Your task to perform on an android device: turn pop-ups on in chrome Image 0: 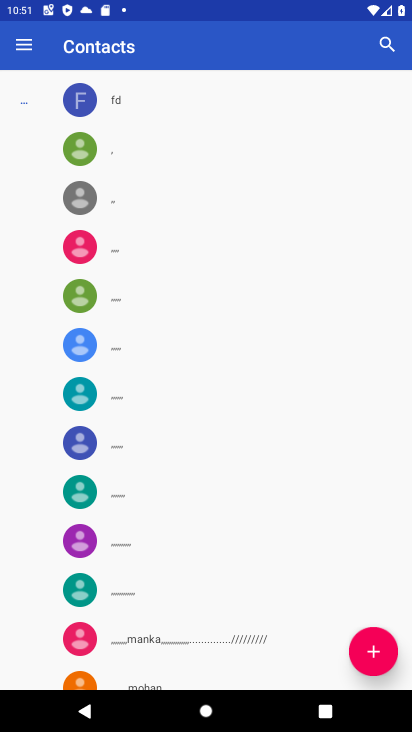
Step 0: press home button
Your task to perform on an android device: turn pop-ups on in chrome Image 1: 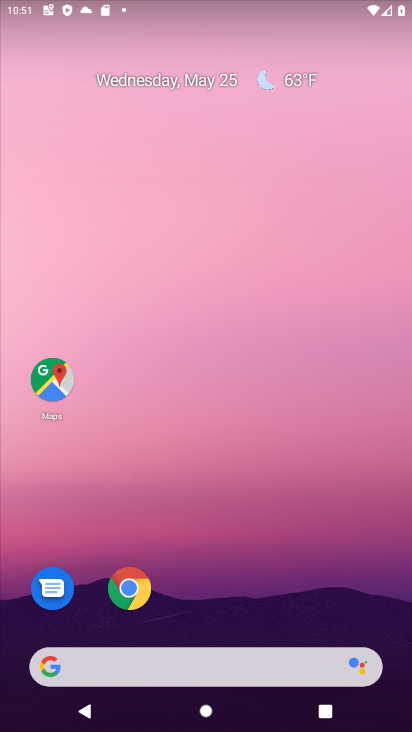
Step 1: click (140, 603)
Your task to perform on an android device: turn pop-ups on in chrome Image 2: 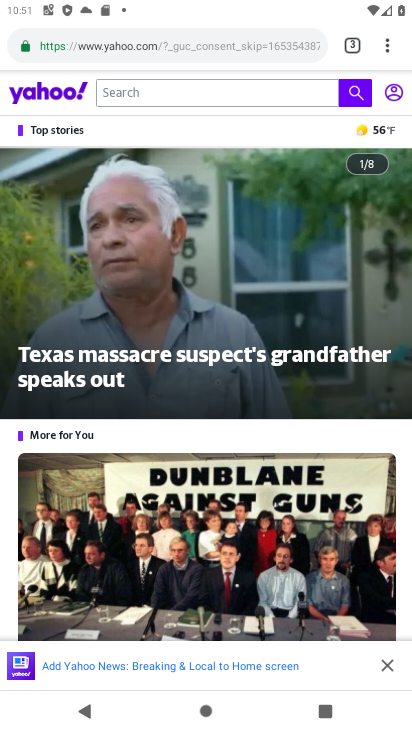
Step 2: click (388, 52)
Your task to perform on an android device: turn pop-ups on in chrome Image 3: 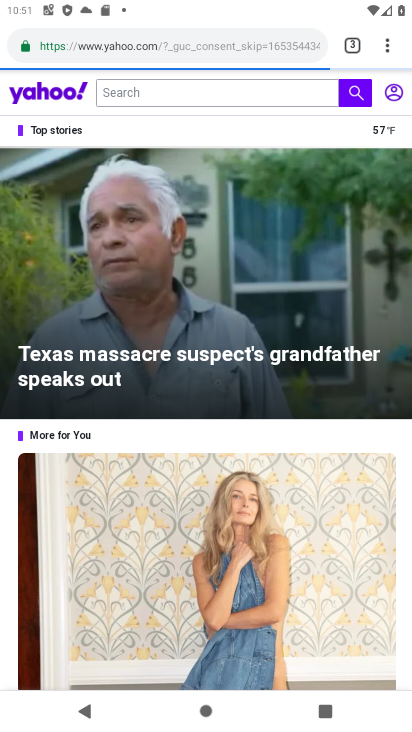
Step 3: click (388, 52)
Your task to perform on an android device: turn pop-ups on in chrome Image 4: 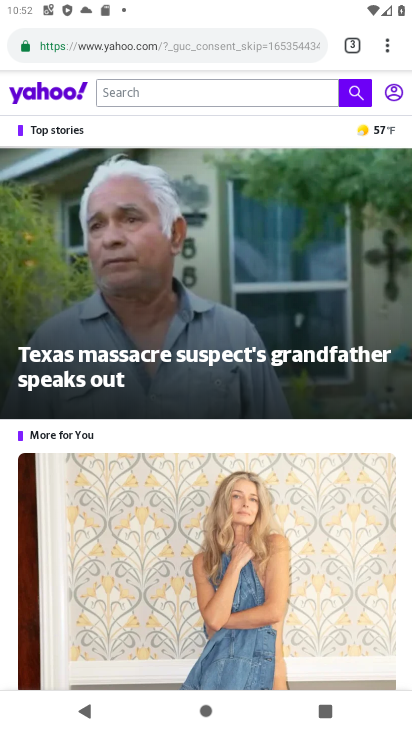
Step 4: click (387, 53)
Your task to perform on an android device: turn pop-ups on in chrome Image 5: 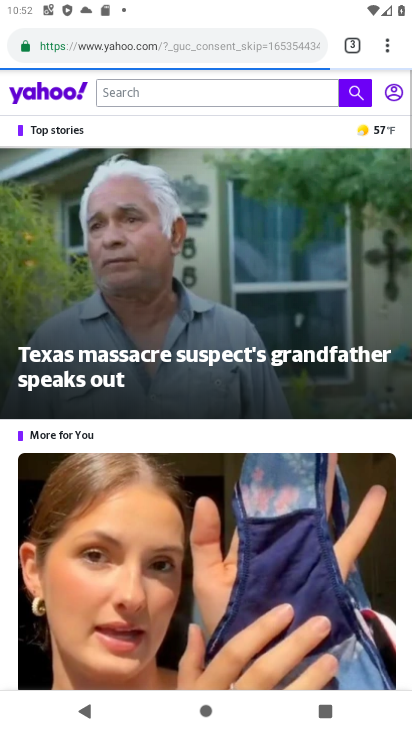
Step 5: click (387, 53)
Your task to perform on an android device: turn pop-ups on in chrome Image 6: 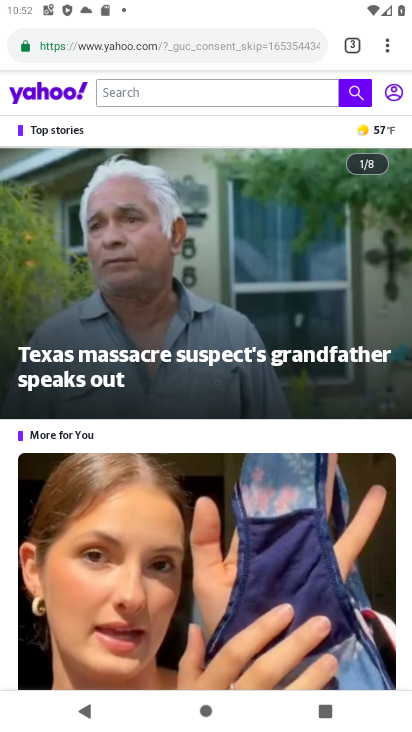
Step 6: click (390, 60)
Your task to perform on an android device: turn pop-ups on in chrome Image 7: 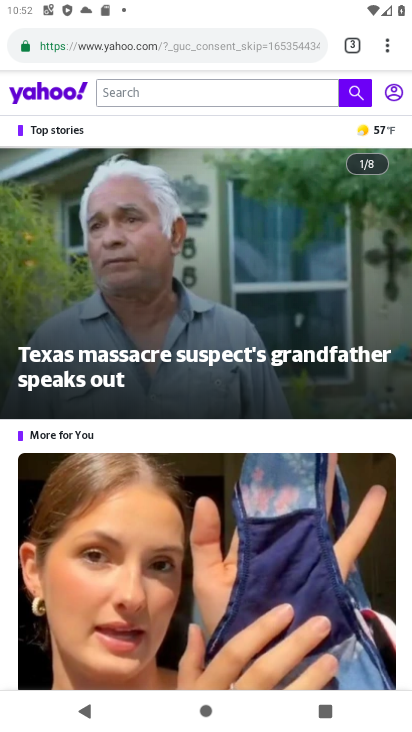
Step 7: click (381, 57)
Your task to perform on an android device: turn pop-ups on in chrome Image 8: 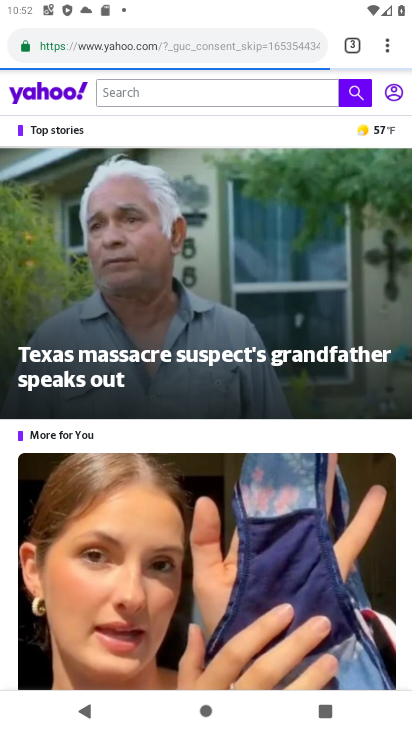
Step 8: click (381, 57)
Your task to perform on an android device: turn pop-ups on in chrome Image 9: 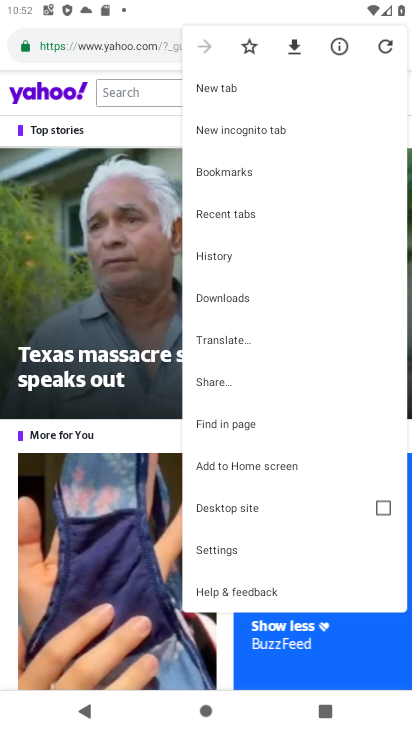
Step 9: click (217, 555)
Your task to perform on an android device: turn pop-ups on in chrome Image 10: 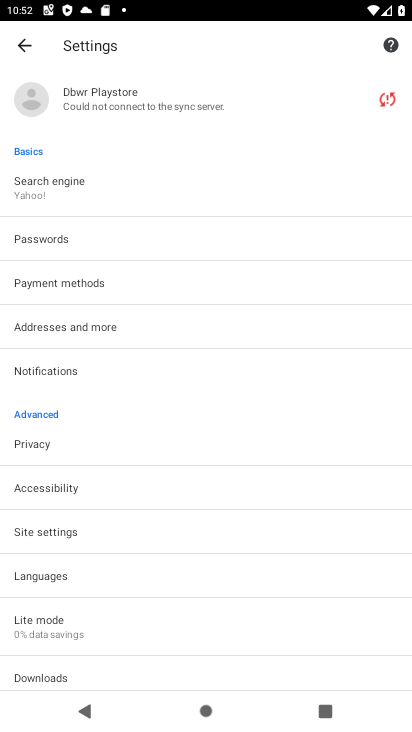
Step 10: click (129, 516)
Your task to perform on an android device: turn pop-ups on in chrome Image 11: 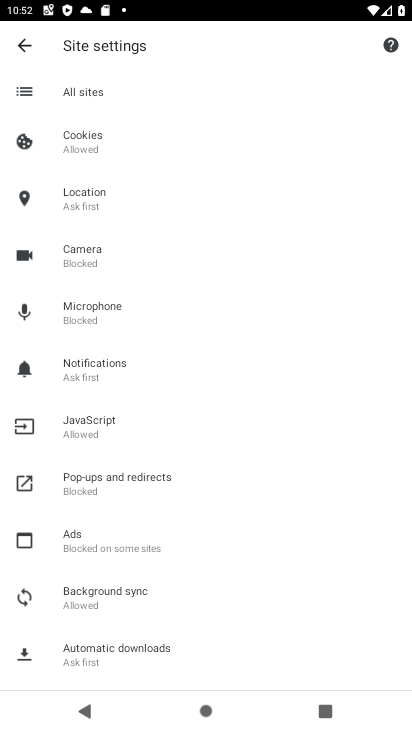
Step 11: click (135, 486)
Your task to perform on an android device: turn pop-ups on in chrome Image 12: 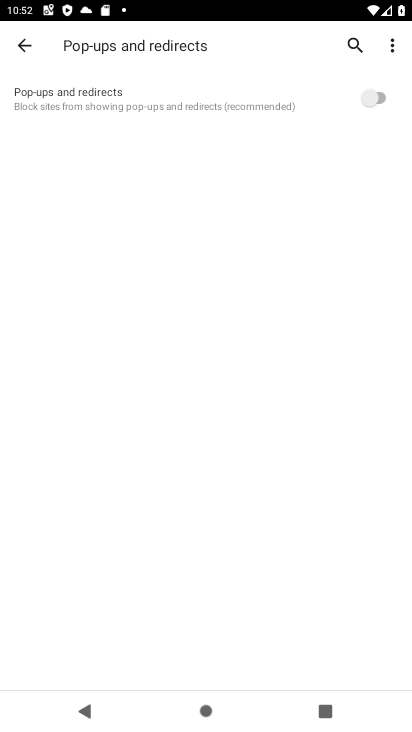
Step 12: click (379, 99)
Your task to perform on an android device: turn pop-ups on in chrome Image 13: 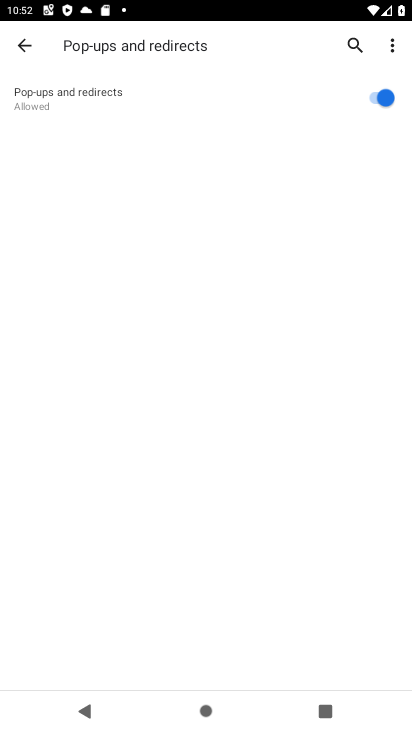
Step 13: task complete